Your task to perform on an android device: Go to internet settings Image 0: 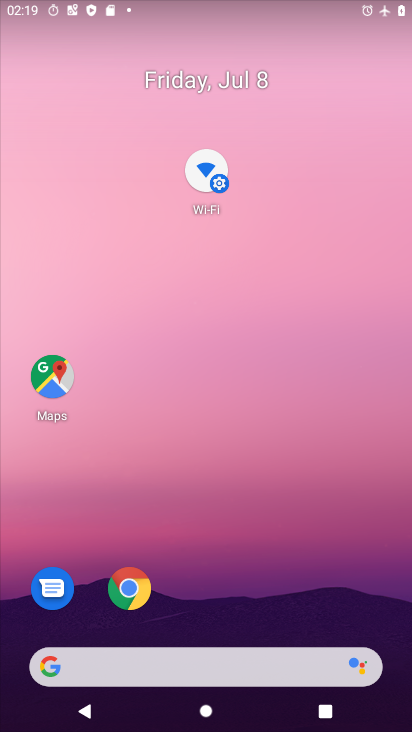
Step 0: drag from (200, 588) to (175, 125)
Your task to perform on an android device: Go to internet settings Image 1: 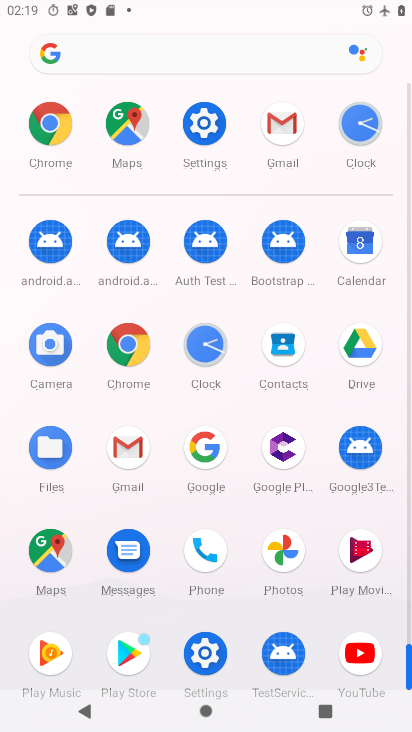
Step 1: click (196, 138)
Your task to perform on an android device: Go to internet settings Image 2: 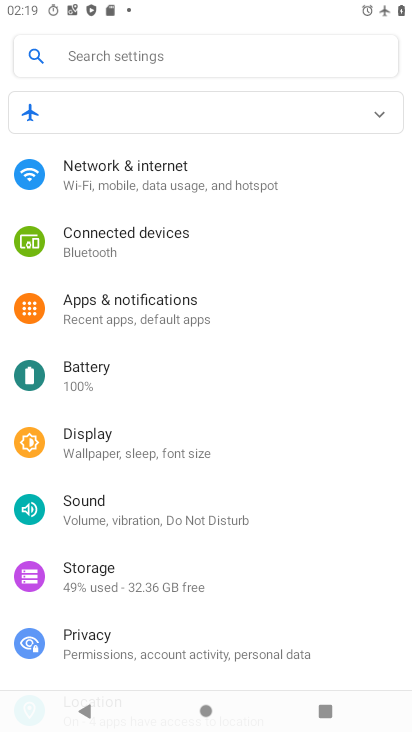
Step 2: click (130, 167)
Your task to perform on an android device: Go to internet settings Image 3: 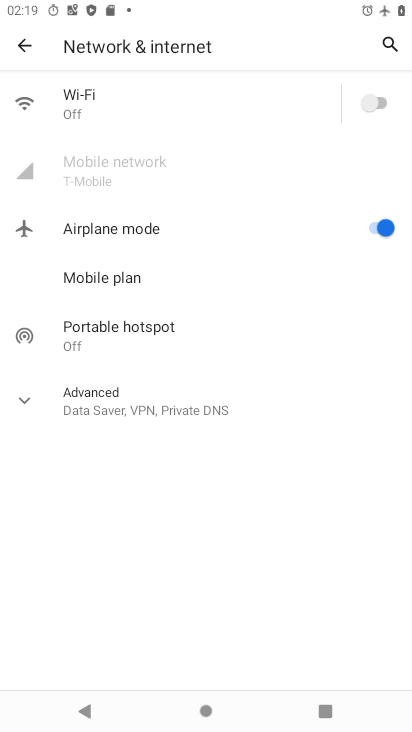
Step 3: click (155, 157)
Your task to perform on an android device: Go to internet settings Image 4: 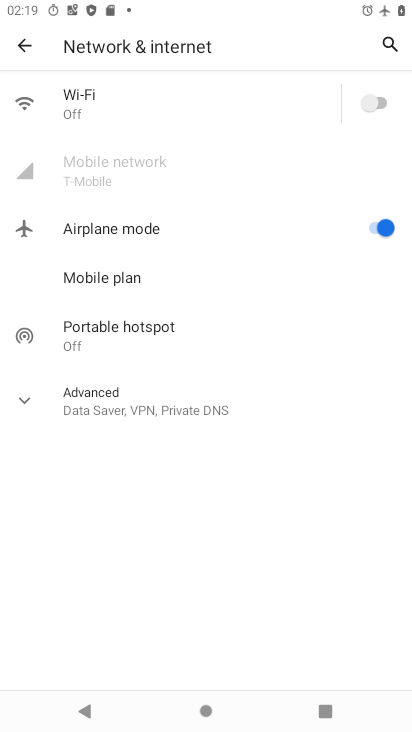
Step 4: task complete